Your task to perform on an android device: change your default location settings in chrome Image 0: 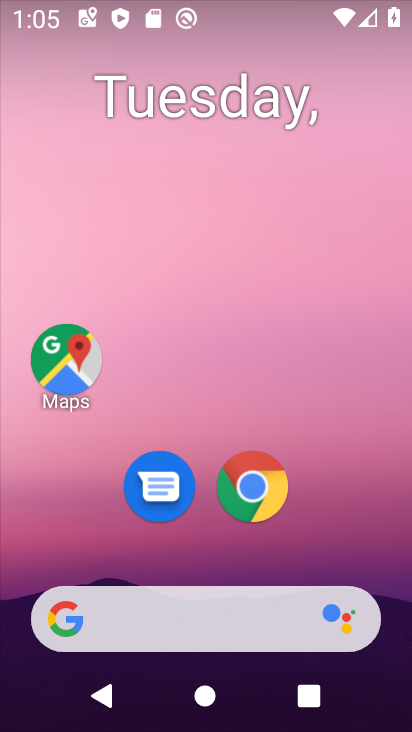
Step 0: click (262, 492)
Your task to perform on an android device: change your default location settings in chrome Image 1: 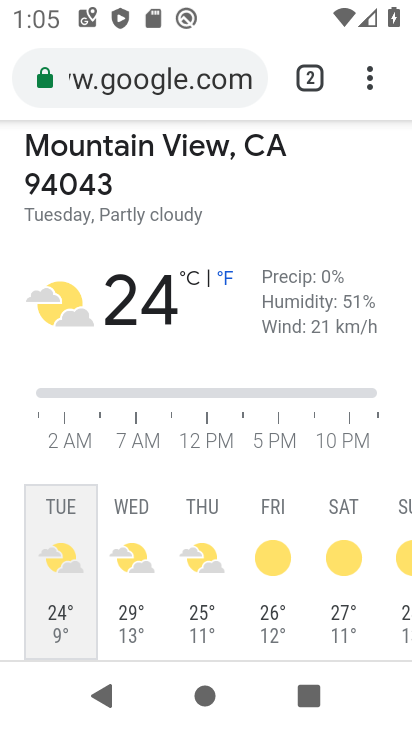
Step 1: click (361, 88)
Your task to perform on an android device: change your default location settings in chrome Image 2: 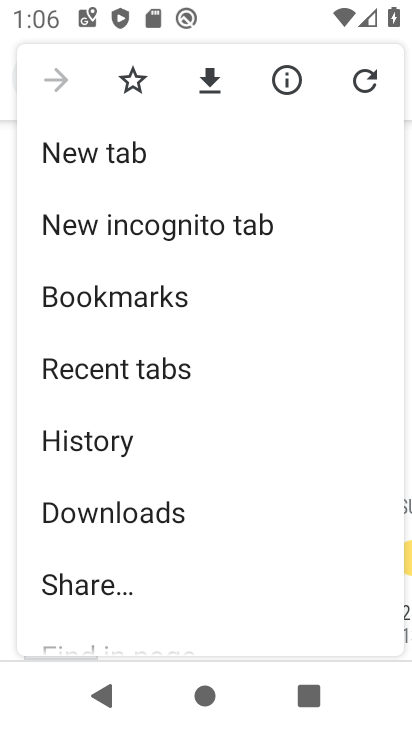
Step 2: drag from (229, 582) to (252, 268)
Your task to perform on an android device: change your default location settings in chrome Image 3: 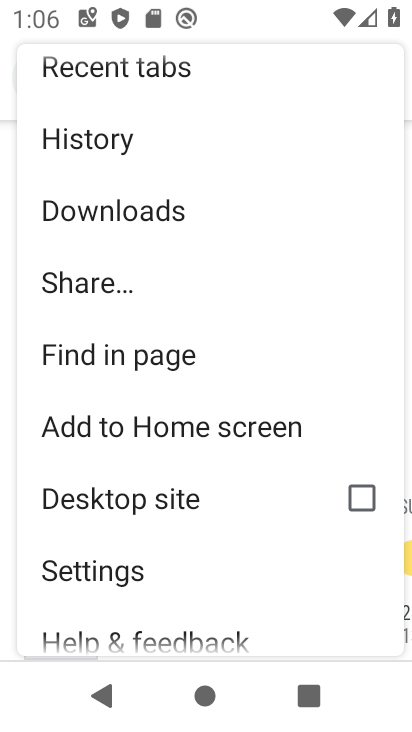
Step 3: click (208, 564)
Your task to perform on an android device: change your default location settings in chrome Image 4: 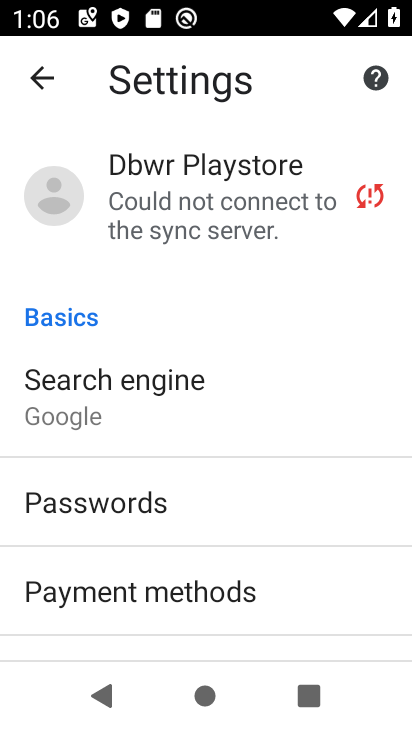
Step 4: drag from (212, 623) to (207, 227)
Your task to perform on an android device: change your default location settings in chrome Image 5: 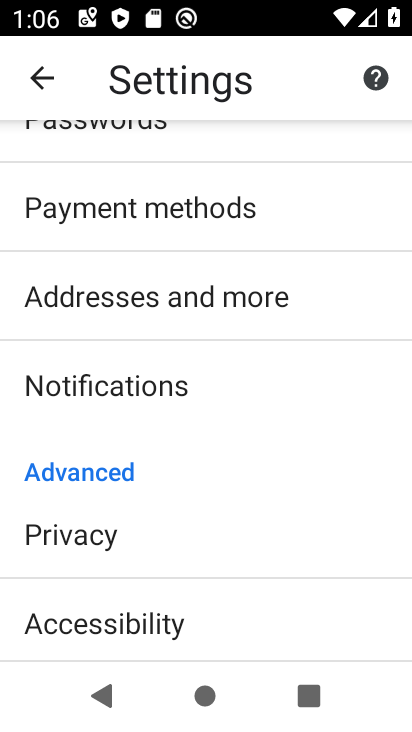
Step 5: drag from (204, 599) to (170, 343)
Your task to perform on an android device: change your default location settings in chrome Image 6: 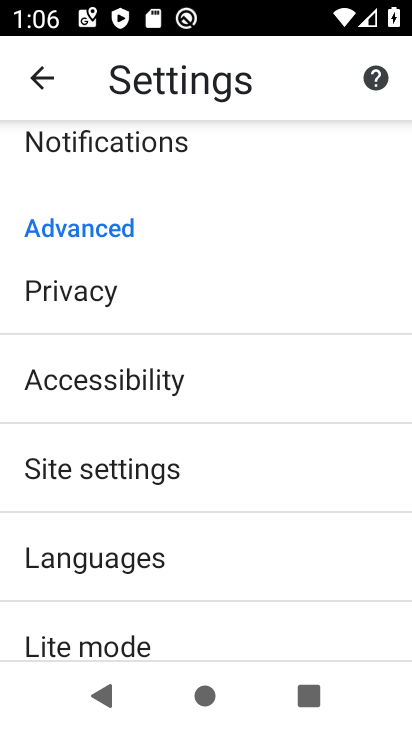
Step 6: click (206, 486)
Your task to perform on an android device: change your default location settings in chrome Image 7: 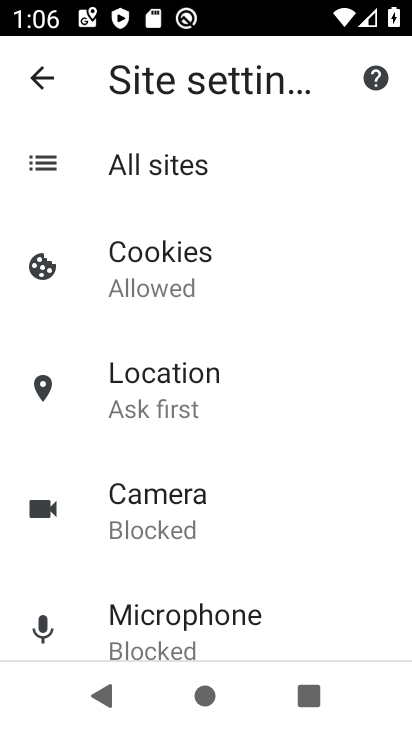
Step 7: click (258, 406)
Your task to perform on an android device: change your default location settings in chrome Image 8: 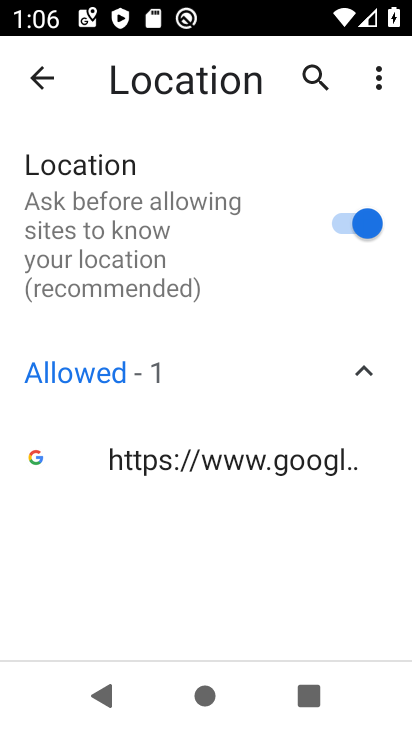
Step 8: task complete